Your task to perform on an android device: Open Google Image 0: 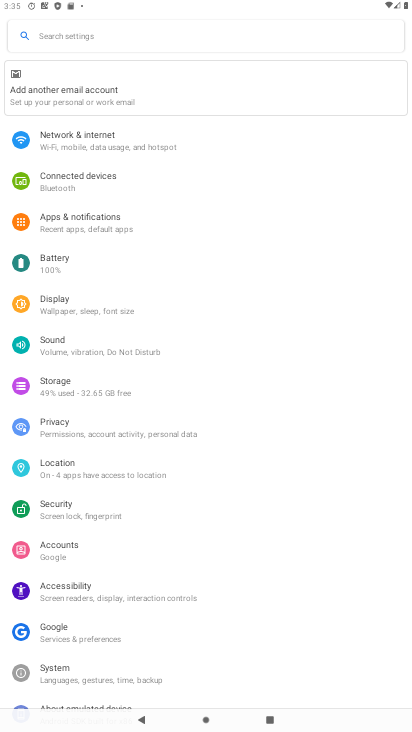
Step 0: press home button
Your task to perform on an android device: Open Google Image 1: 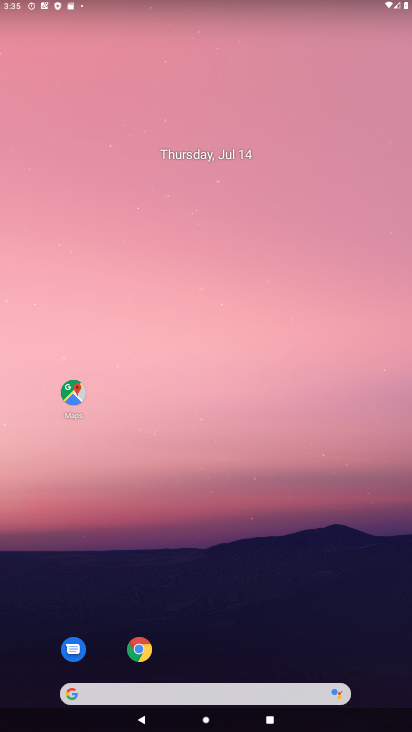
Step 1: click (70, 690)
Your task to perform on an android device: Open Google Image 2: 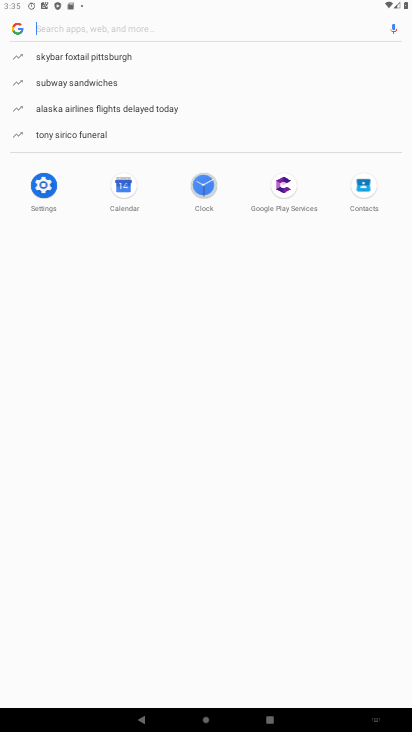
Step 2: click (16, 27)
Your task to perform on an android device: Open Google Image 3: 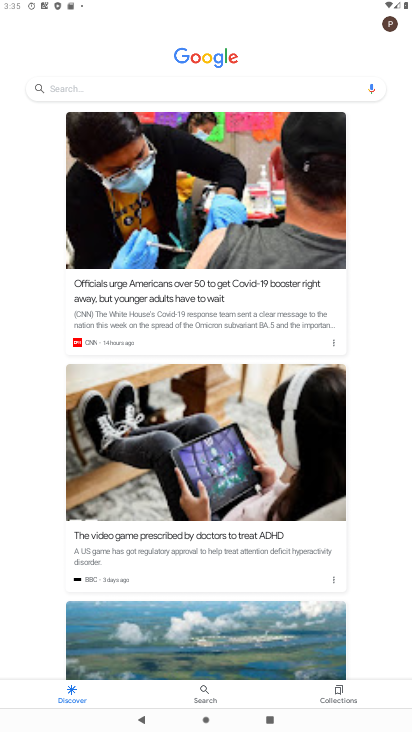
Step 3: task complete